Your task to perform on an android device: Open accessibility settings Image 0: 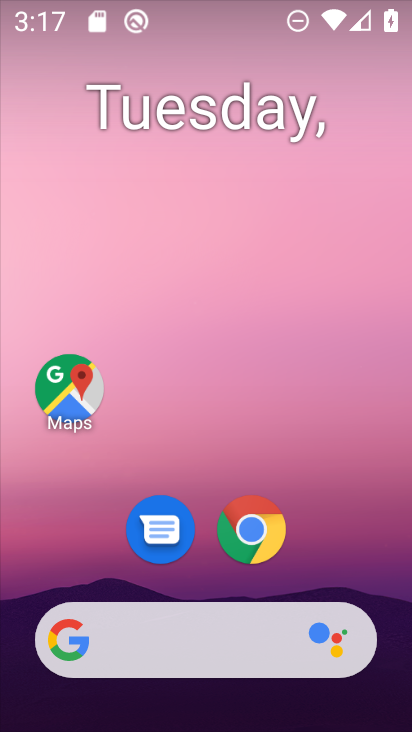
Step 0: drag from (304, 512) to (305, 235)
Your task to perform on an android device: Open accessibility settings Image 1: 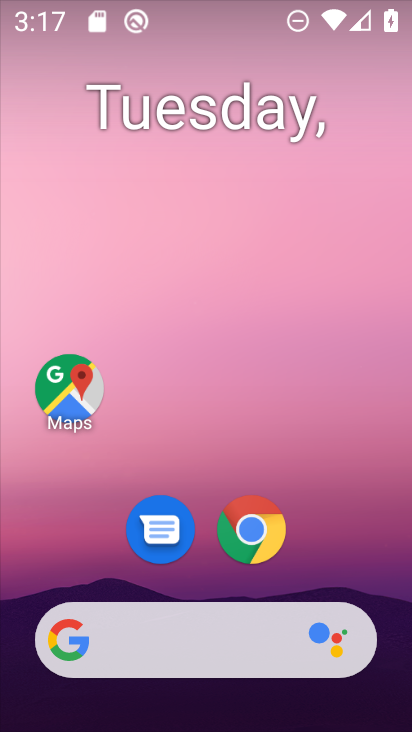
Step 1: drag from (371, 542) to (305, 94)
Your task to perform on an android device: Open accessibility settings Image 2: 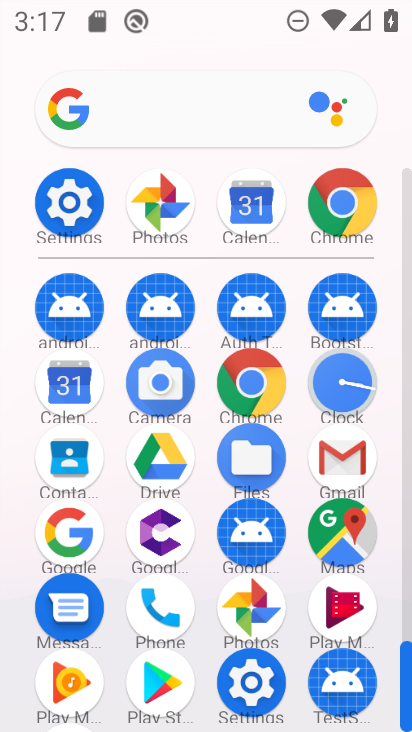
Step 2: click (76, 202)
Your task to perform on an android device: Open accessibility settings Image 3: 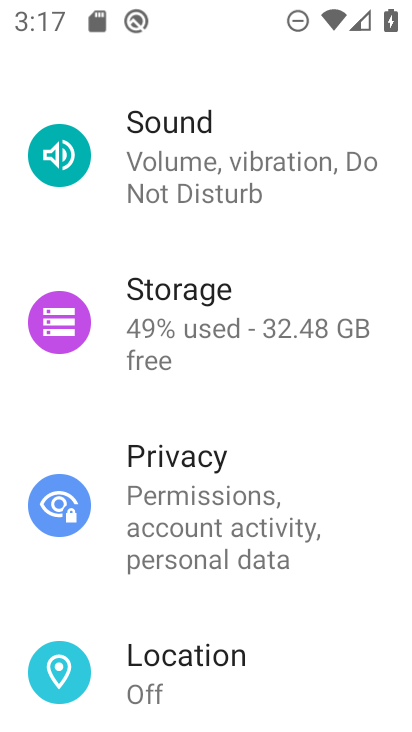
Step 3: drag from (180, 588) to (252, 134)
Your task to perform on an android device: Open accessibility settings Image 4: 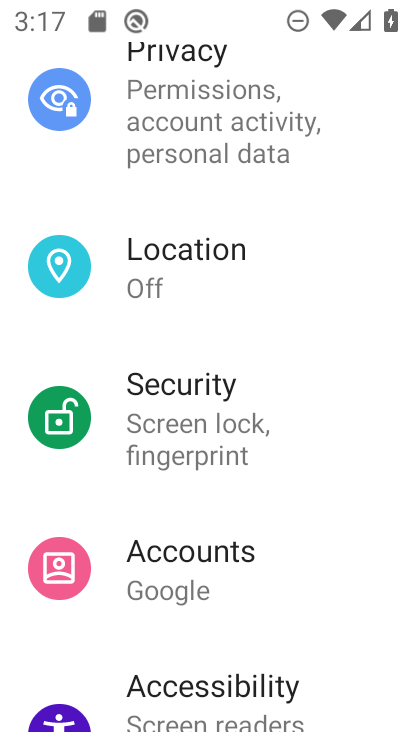
Step 4: drag from (199, 567) to (213, 259)
Your task to perform on an android device: Open accessibility settings Image 5: 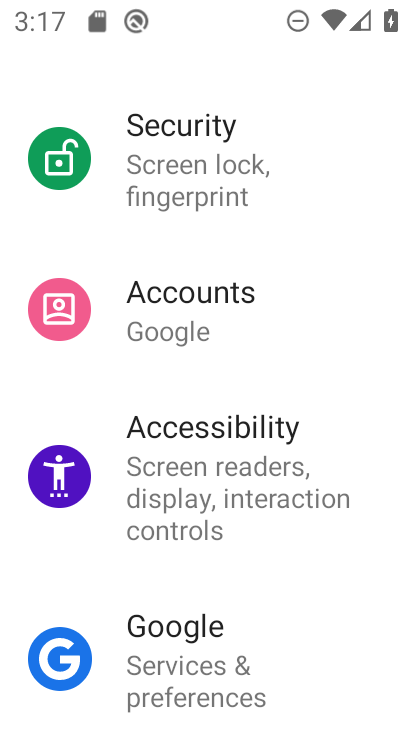
Step 5: click (163, 492)
Your task to perform on an android device: Open accessibility settings Image 6: 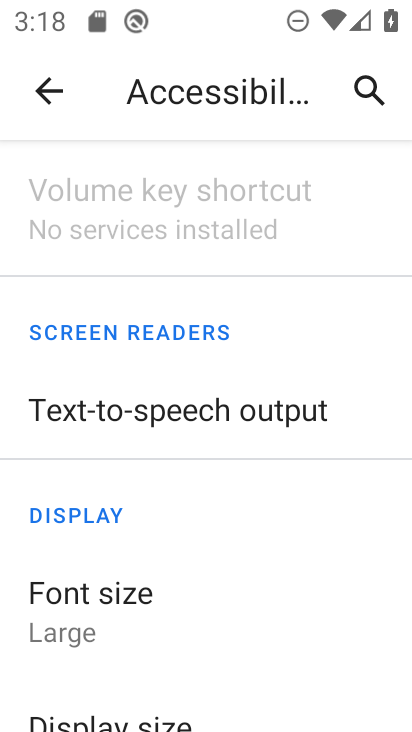
Step 6: task complete